Your task to perform on an android device: toggle notifications settings in the gmail app Image 0: 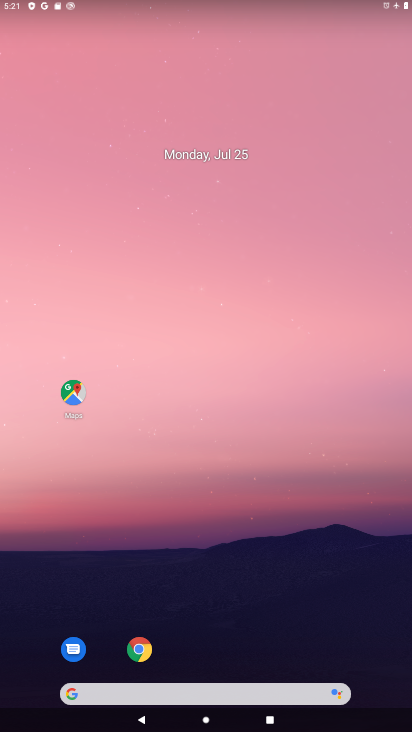
Step 0: drag from (311, 690) to (325, 87)
Your task to perform on an android device: toggle notifications settings in the gmail app Image 1: 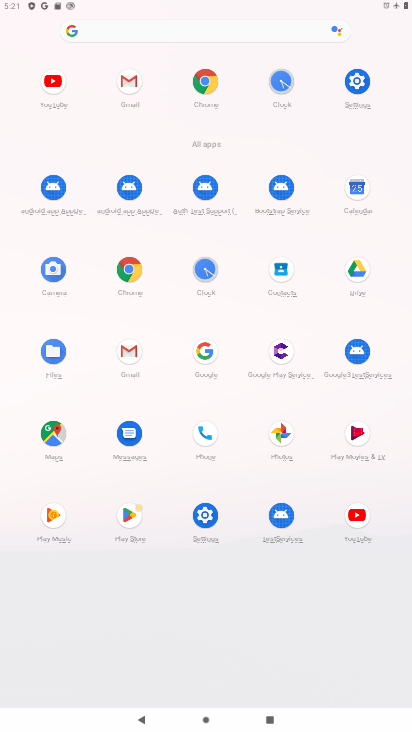
Step 1: click (127, 338)
Your task to perform on an android device: toggle notifications settings in the gmail app Image 2: 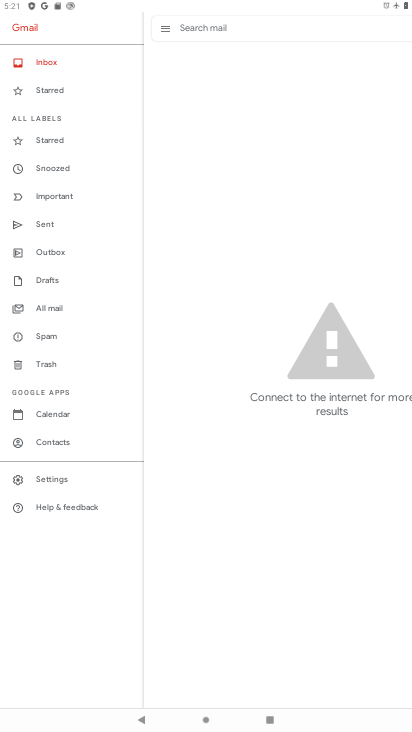
Step 2: click (47, 479)
Your task to perform on an android device: toggle notifications settings in the gmail app Image 3: 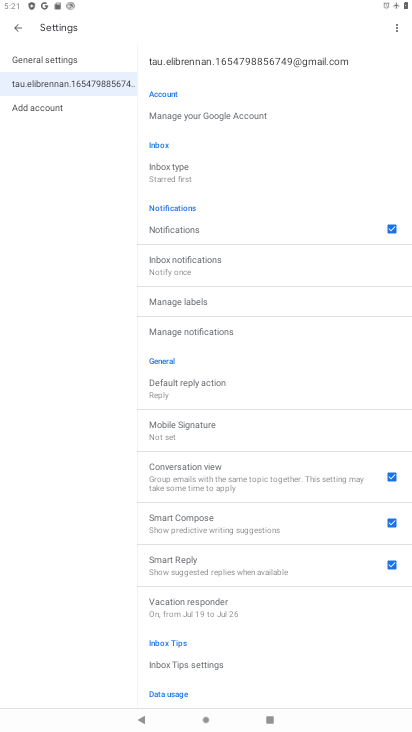
Step 3: click (191, 329)
Your task to perform on an android device: toggle notifications settings in the gmail app Image 4: 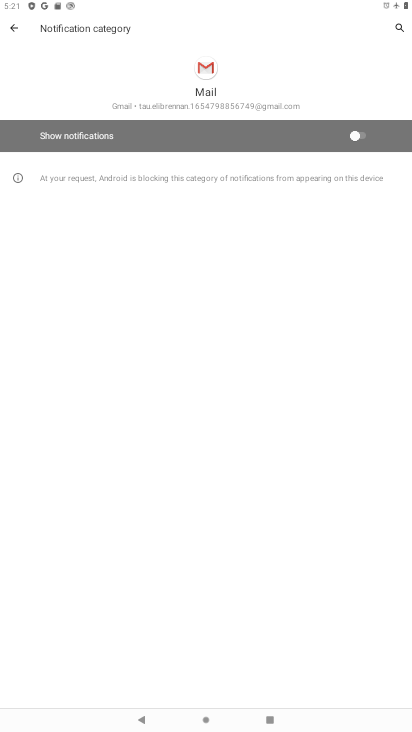
Step 4: click (356, 135)
Your task to perform on an android device: toggle notifications settings in the gmail app Image 5: 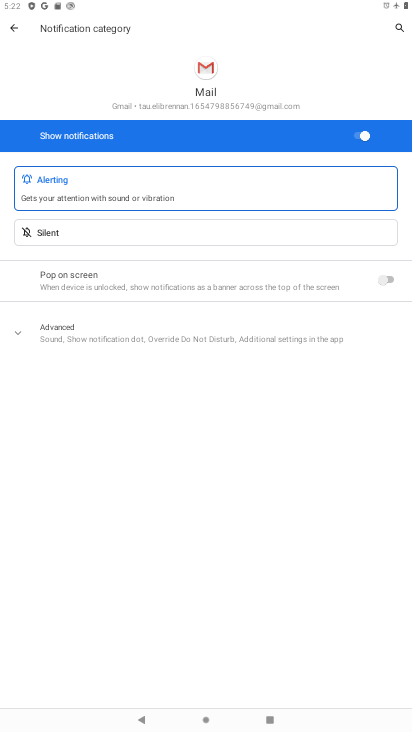
Step 5: task complete